Your task to perform on an android device: Show the shopping cart on costco.com. Search for "amazon basics triple a" on costco.com, select the first entry, and add it to the cart. Image 0: 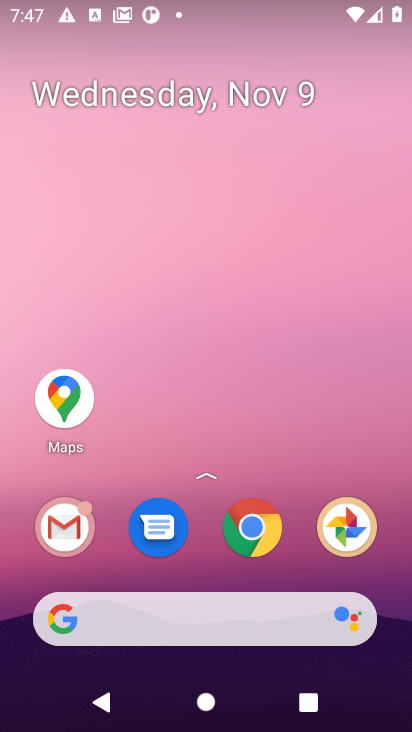
Step 0: click (255, 530)
Your task to perform on an android device: Show the shopping cart on costco.com. Search for "amazon basics triple a" on costco.com, select the first entry, and add it to the cart. Image 1: 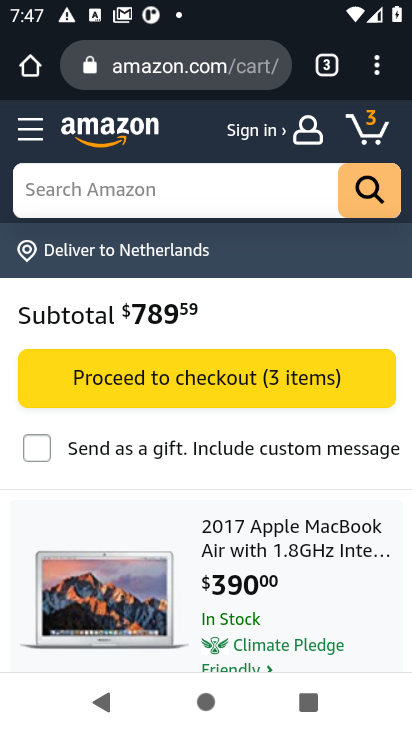
Step 1: click (156, 68)
Your task to perform on an android device: Show the shopping cart on costco.com. Search for "amazon basics triple a" on costco.com, select the first entry, and add it to the cart. Image 2: 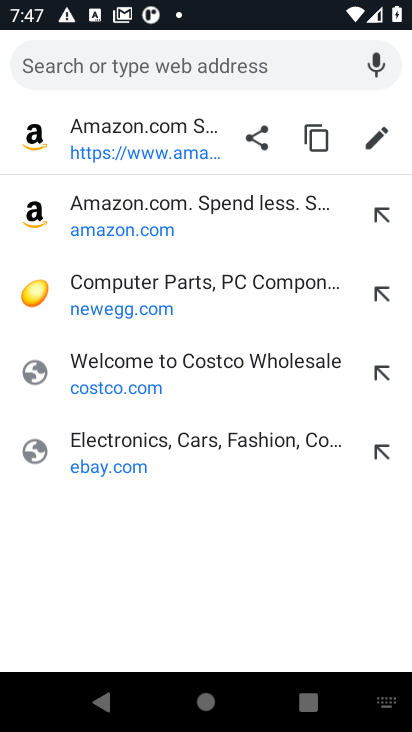
Step 2: click (103, 390)
Your task to perform on an android device: Show the shopping cart on costco.com. Search for "amazon basics triple a" on costco.com, select the first entry, and add it to the cart. Image 3: 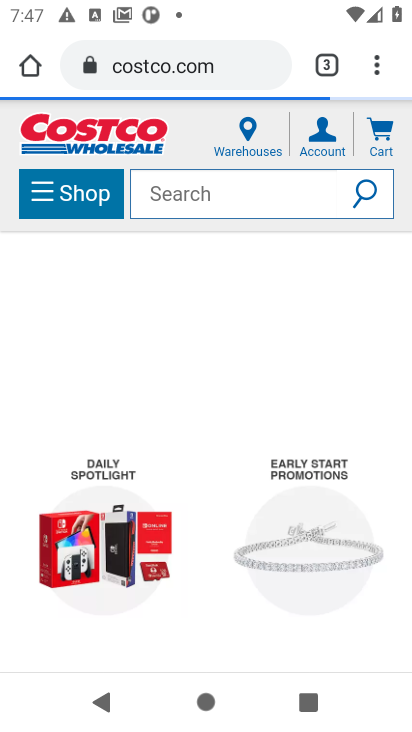
Step 3: click (376, 145)
Your task to perform on an android device: Show the shopping cart on costco.com. Search for "amazon basics triple a" on costco.com, select the first entry, and add it to the cart. Image 4: 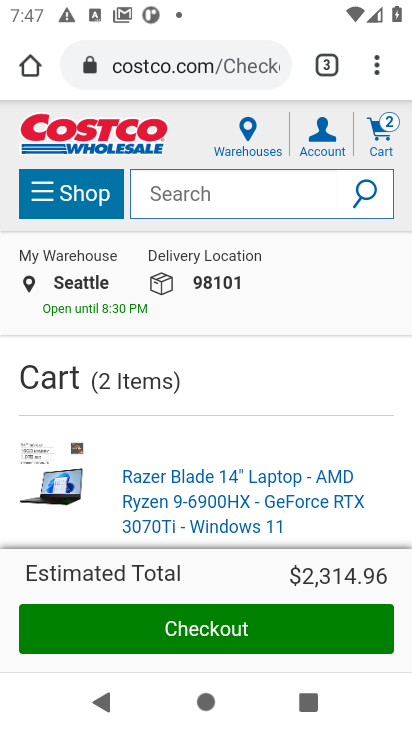
Step 4: drag from (237, 470) to (234, 326)
Your task to perform on an android device: Show the shopping cart on costco.com. Search for "amazon basics triple a" on costco.com, select the first entry, and add it to the cart. Image 5: 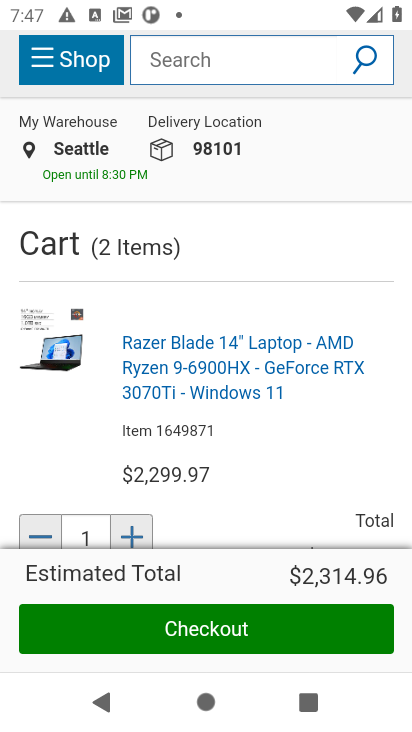
Step 5: click (258, 65)
Your task to perform on an android device: Show the shopping cart on costco.com. Search for "amazon basics triple a" on costco.com, select the first entry, and add it to the cart. Image 6: 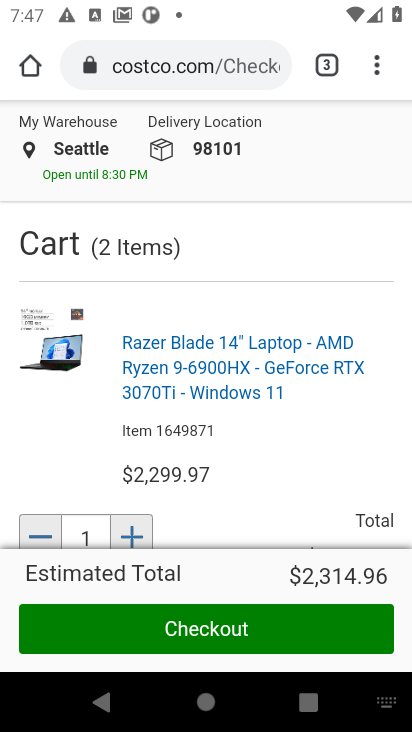
Step 6: type "amazon basics triple a"
Your task to perform on an android device: Show the shopping cart on costco.com. Search for "amazon basics triple a" on costco.com, select the first entry, and add it to the cart. Image 7: 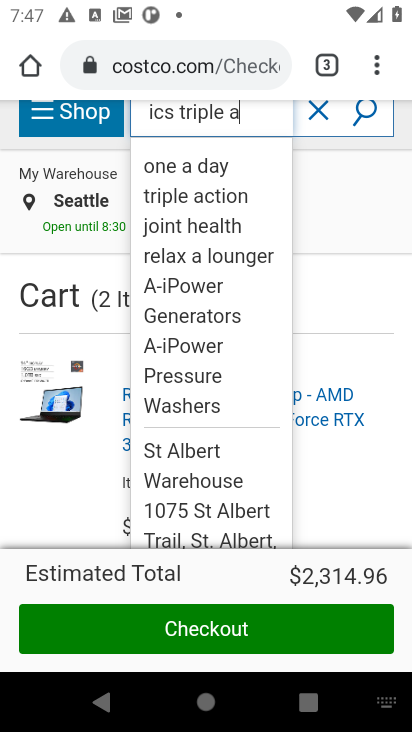
Step 7: click (367, 116)
Your task to perform on an android device: Show the shopping cart on costco.com. Search for "amazon basics triple a" on costco.com, select the first entry, and add it to the cart. Image 8: 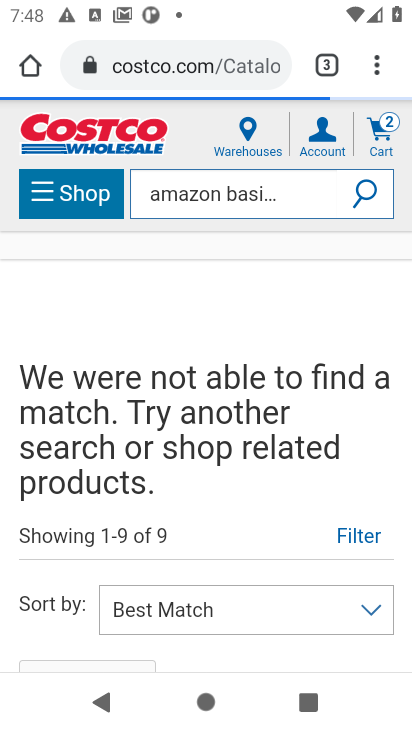
Step 8: task complete